Your task to perform on an android device: move a message to another label in the gmail app Image 0: 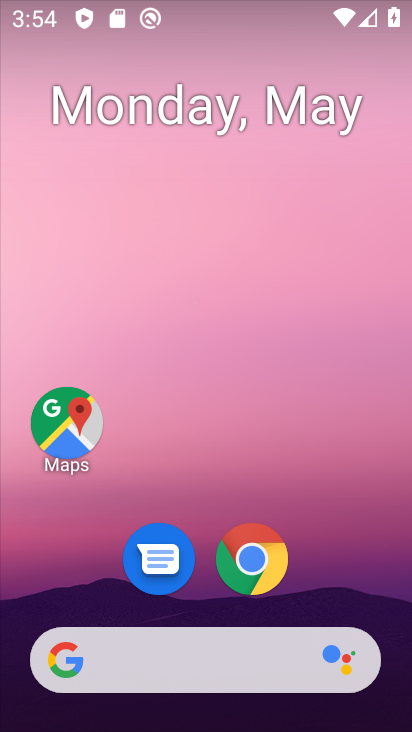
Step 0: drag from (342, 558) to (247, 13)
Your task to perform on an android device: move a message to another label in the gmail app Image 1: 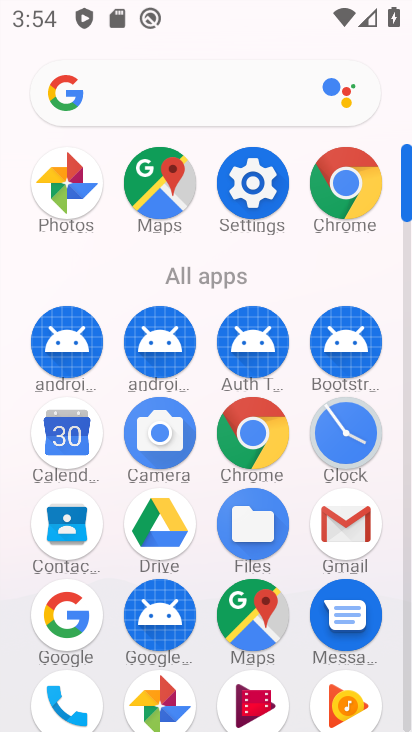
Step 1: drag from (15, 565) to (23, 259)
Your task to perform on an android device: move a message to another label in the gmail app Image 2: 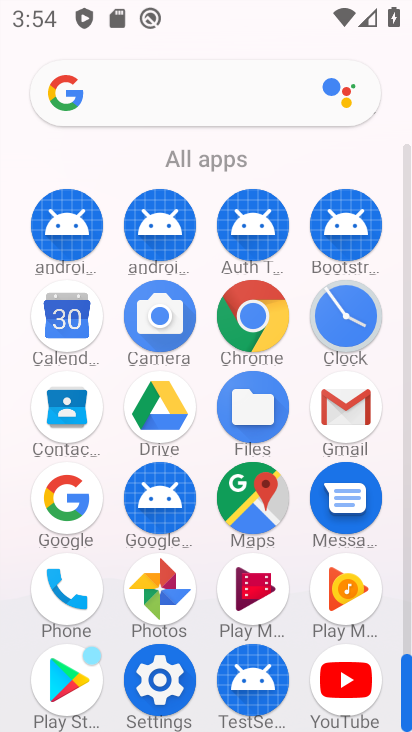
Step 2: click (346, 396)
Your task to perform on an android device: move a message to another label in the gmail app Image 3: 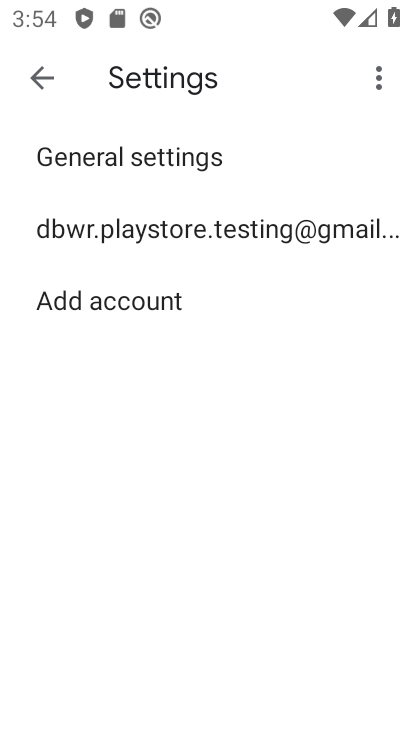
Step 3: click (45, 80)
Your task to perform on an android device: move a message to another label in the gmail app Image 4: 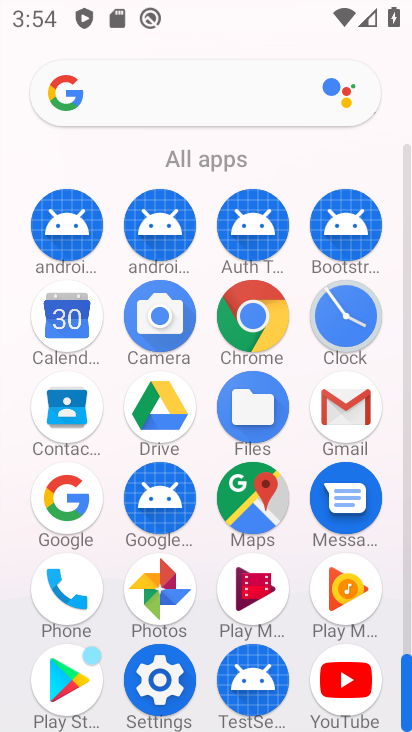
Step 4: click (345, 404)
Your task to perform on an android device: move a message to another label in the gmail app Image 5: 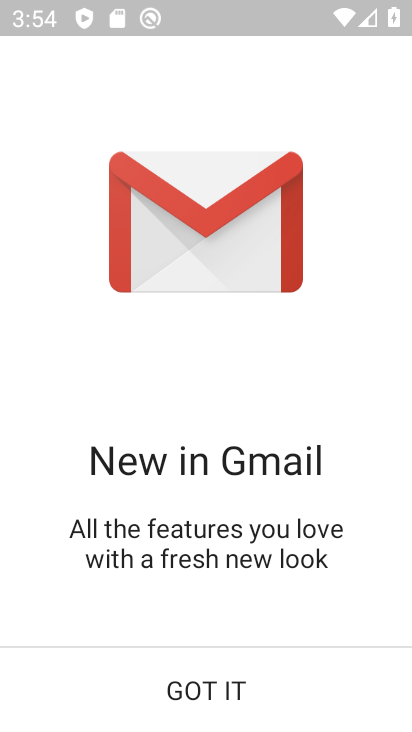
Step 5: click (187, 695)
Your task to perform on an android device: move a message to another label in the gmail app Image 6: 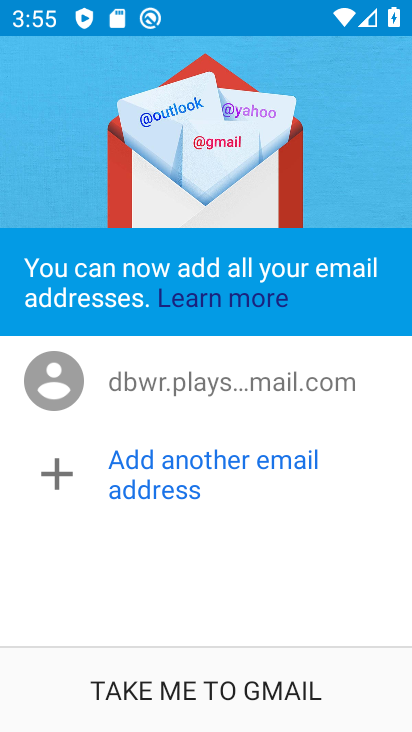
Step 6: click (203, 690)
Your task to perform on an android device: move a message to another label in the gmail app Image 7: 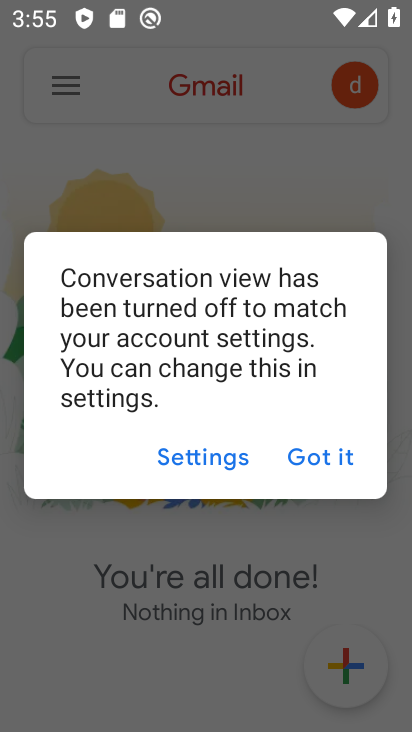
Step 7: click (329, 465)
Your task to perform on an android device: move a message to another label in the gmail app Image 8: 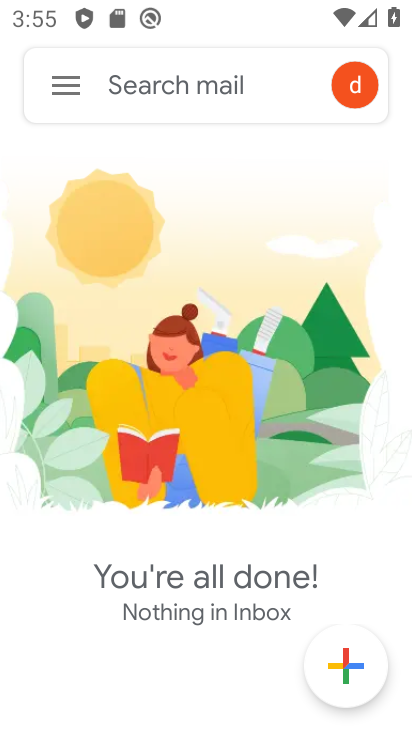
Step 8: click (60, 76)
Your task to perform on an android device: move a message to another label in the gmail app Image 9: 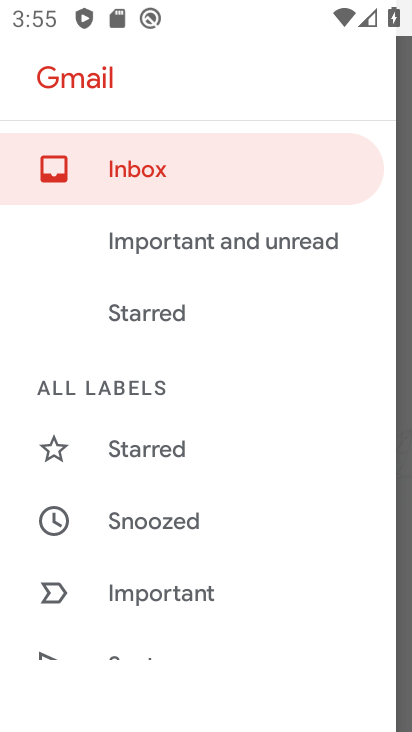
Step 9: drag from (292, 434) to (266, 132)
Your task to perform on an android device: move a message to another label in the gmail app Image 10: 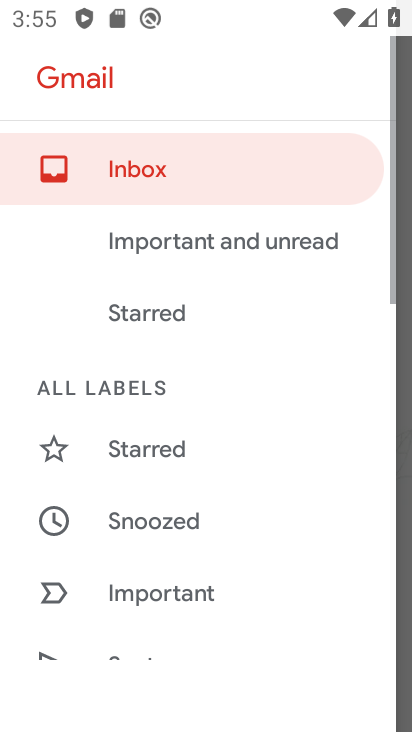
Step 10: drag from (252, 542) to (268, 327)
Your task to perform on an android device: move a message to another label in the gmail app Image 11: 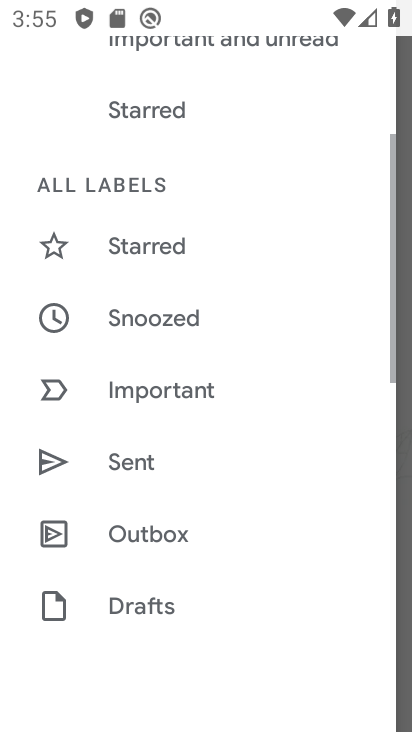
Step 11: drag from (243, 535) to (228, 152)
Your task to perform on an android device: move a message to another label in the gmail app Image 12: 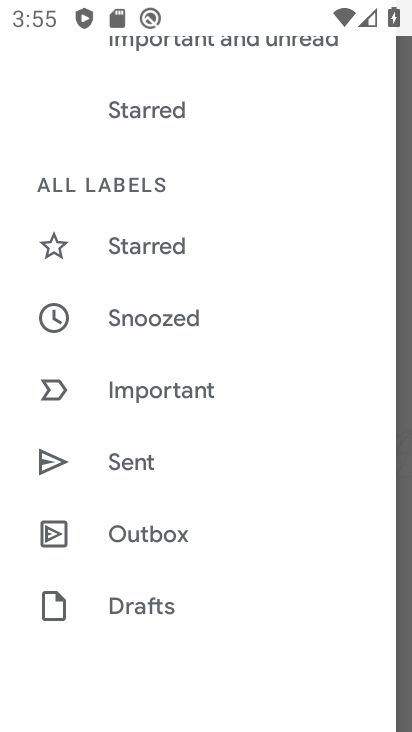
Step 12: drag from (218, 557) to (250, 142)
Your task to perform on an android device: move a message to another label in the gmail app Image 13: 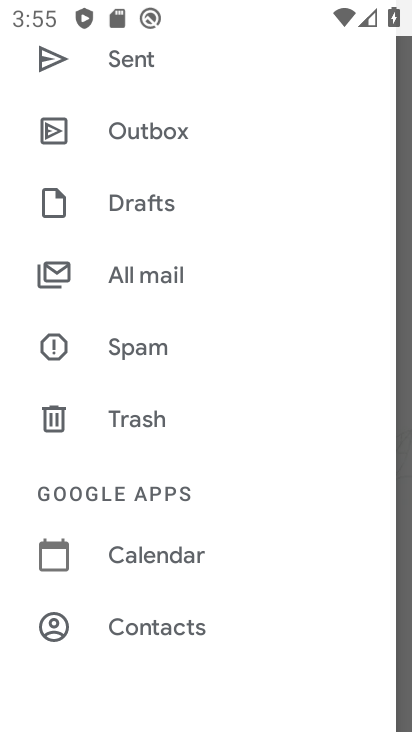
Step 13: drag from (213, 568) to (225, 121)
Your task to perform on an android device: move a message to another label in the gmail app Image 14: 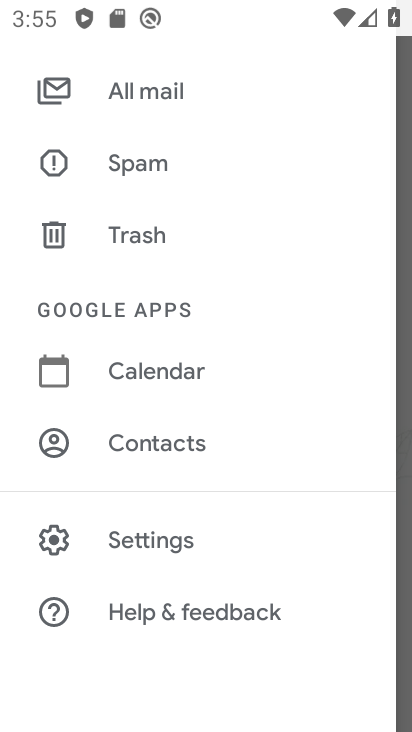
Step 14: click (155, 100)
Your task to perform on an android device: move a message to another label in the gmail app Image 15: 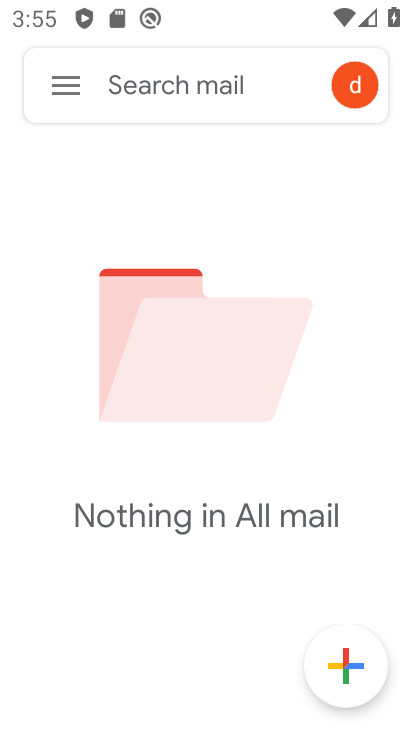
Step 15: task complete